Your task to perform on an android device: Open eBay Image 0: 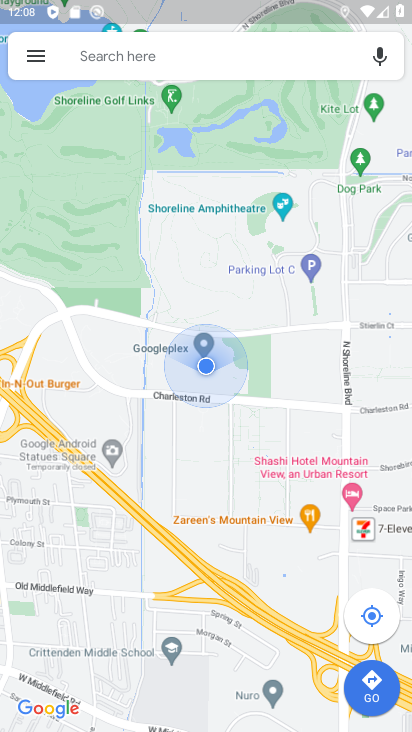
Step 0: press home button
Your task to perform on an android device: Open eBay Image 1: 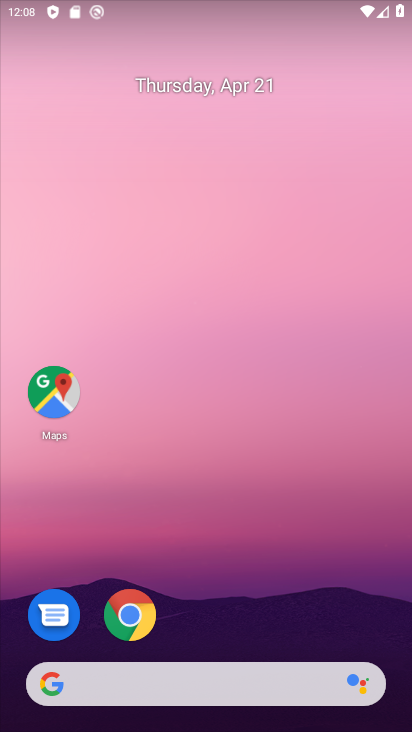
Step 1: click (124, 631)
Your task to perform on an android device: Open eBay Image 2: 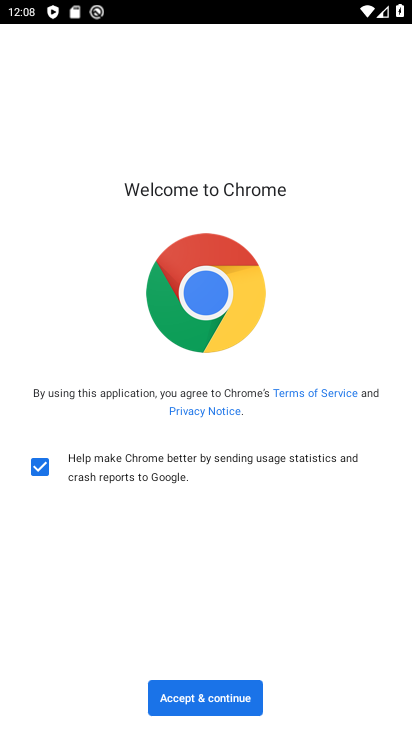
Step 2: click (180, 690)
Your task to perform on an android device: Open eBay Image 3: 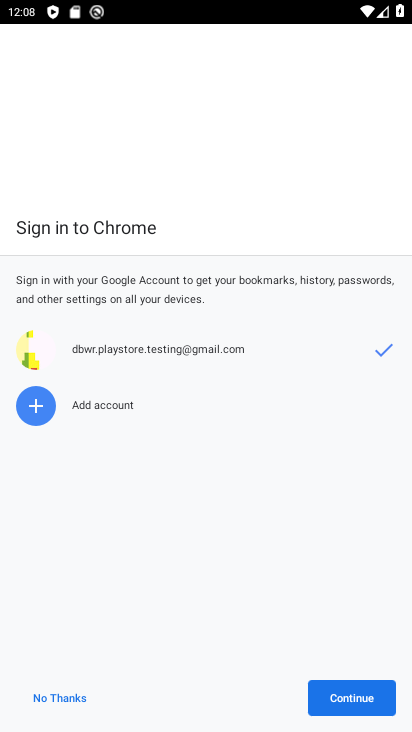
Step 3: click (331, 695)
Your task to perform on an android device: Open eBay Image 4: 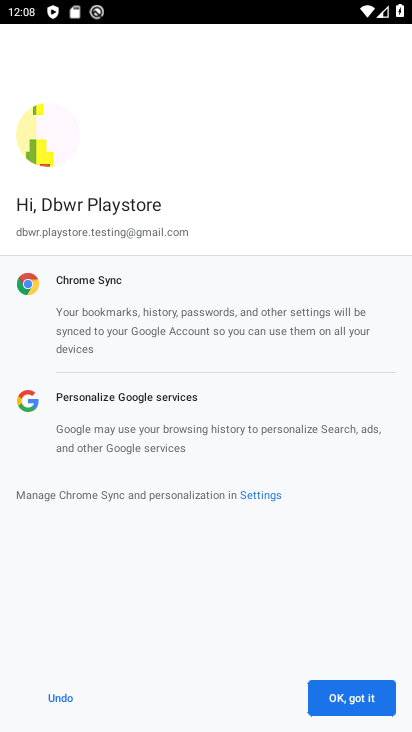
Step 4: click (331, 695)
Your task to perform on an android device: Open eBay Image 5: 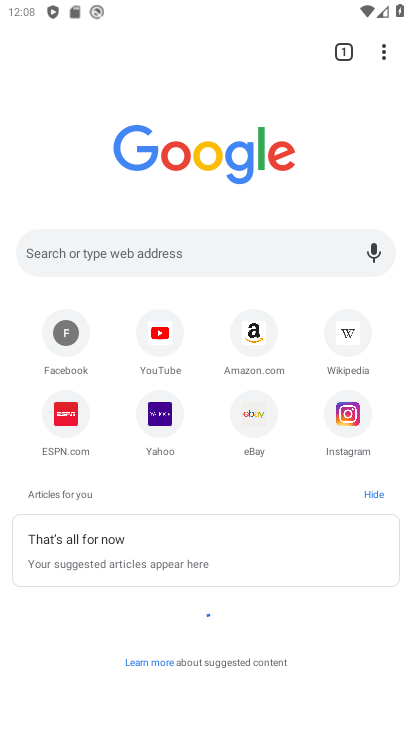
Step 5: click (248, 413)
Your task to perform on an android device: Open eBay Image 6: 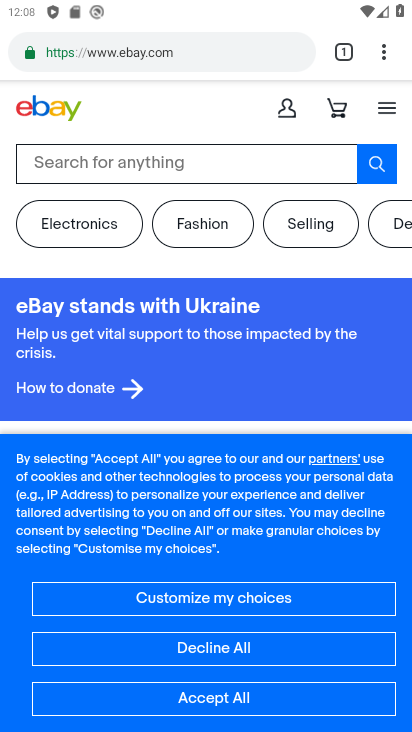
Step 6: task complete